Your task to perform on an android device: What is the recent news? Image 0: 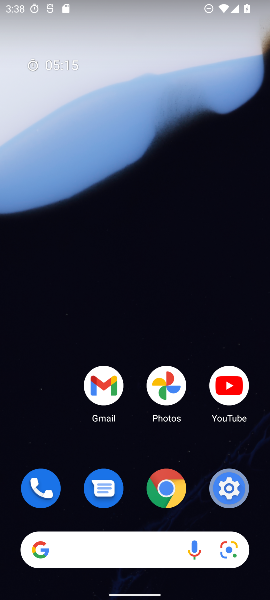
Step 0: drag from (207, 455) to (173, 144)
Your task to perform on an android device: What is the recent news? Image 1: 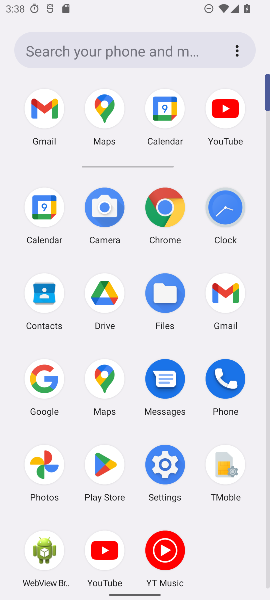
Step 1: click (163, 218)
Your task to perform on an android device: What is the recent news? Image 2: 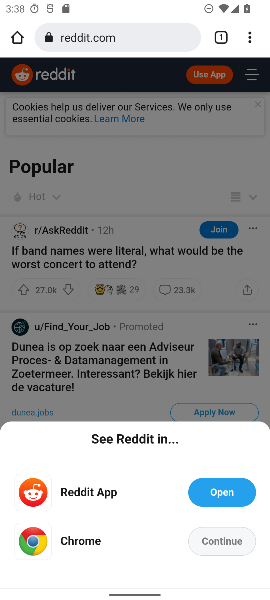
Step 2: click (132, 35)
Your task to perform on an android device: What is the recent news? Image 3: 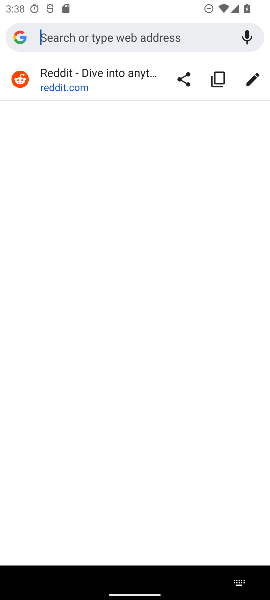
Step 3: type "What is the recent news?"
Your task to perform on an android device: What is the recent news? Image 4: 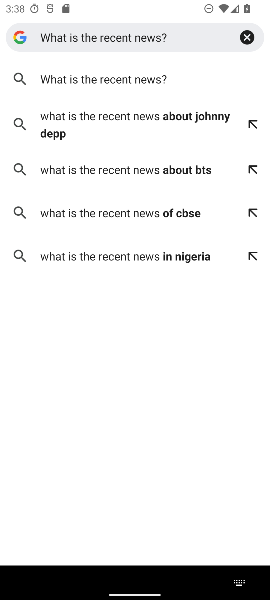
Step 4: click (115, 77)
Your task to perform on an android device: What is the recent news? Image 5: 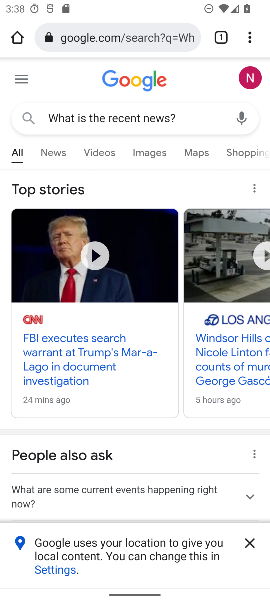
Step 5: task complete